Your task to perform on an android device: Search for "asus zenbook" on newegg, select the first entry, and add it to the cart. Image 0: 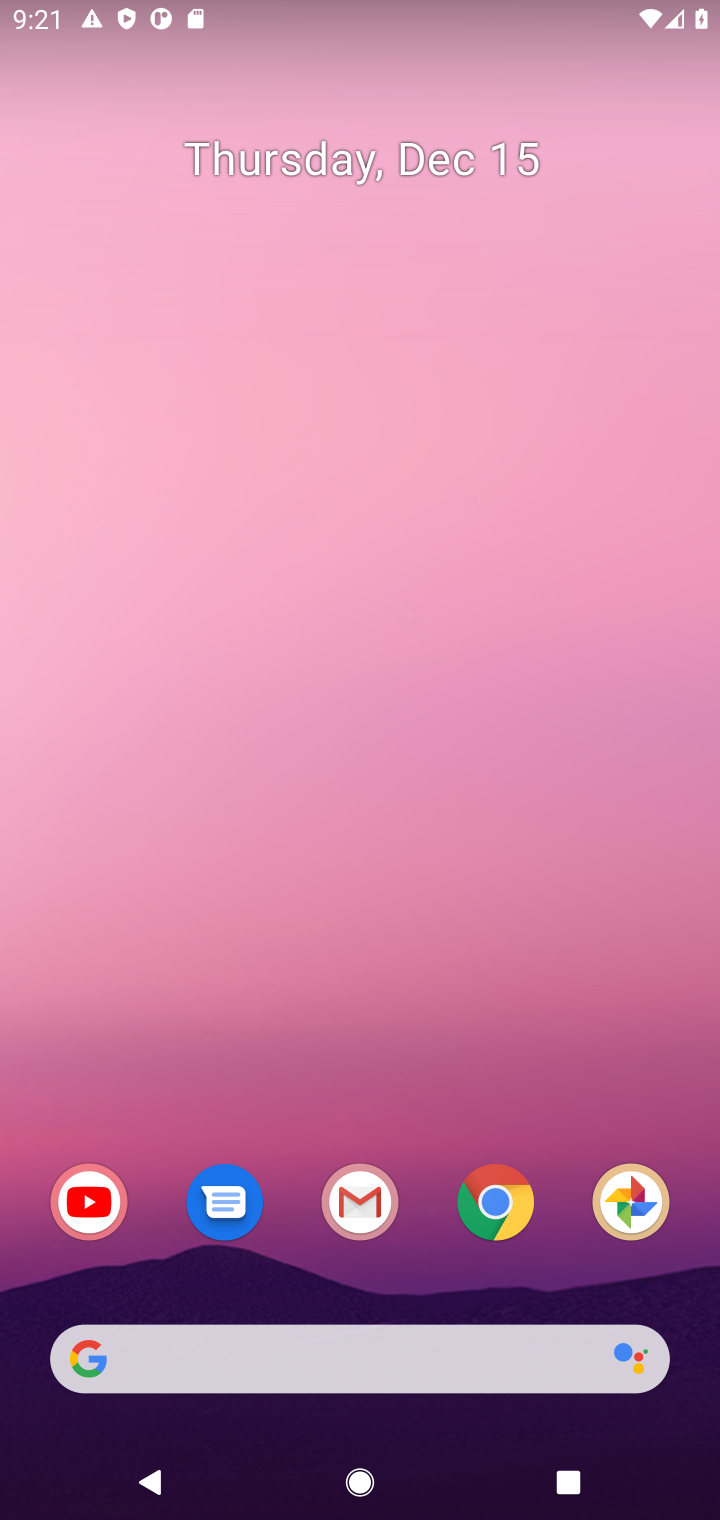
Step 0: click (499, 1211)
Your task to perform on an android device: Search for "asus zenbook" on newegg, select the first entry, and add it to the cart. Image 1: 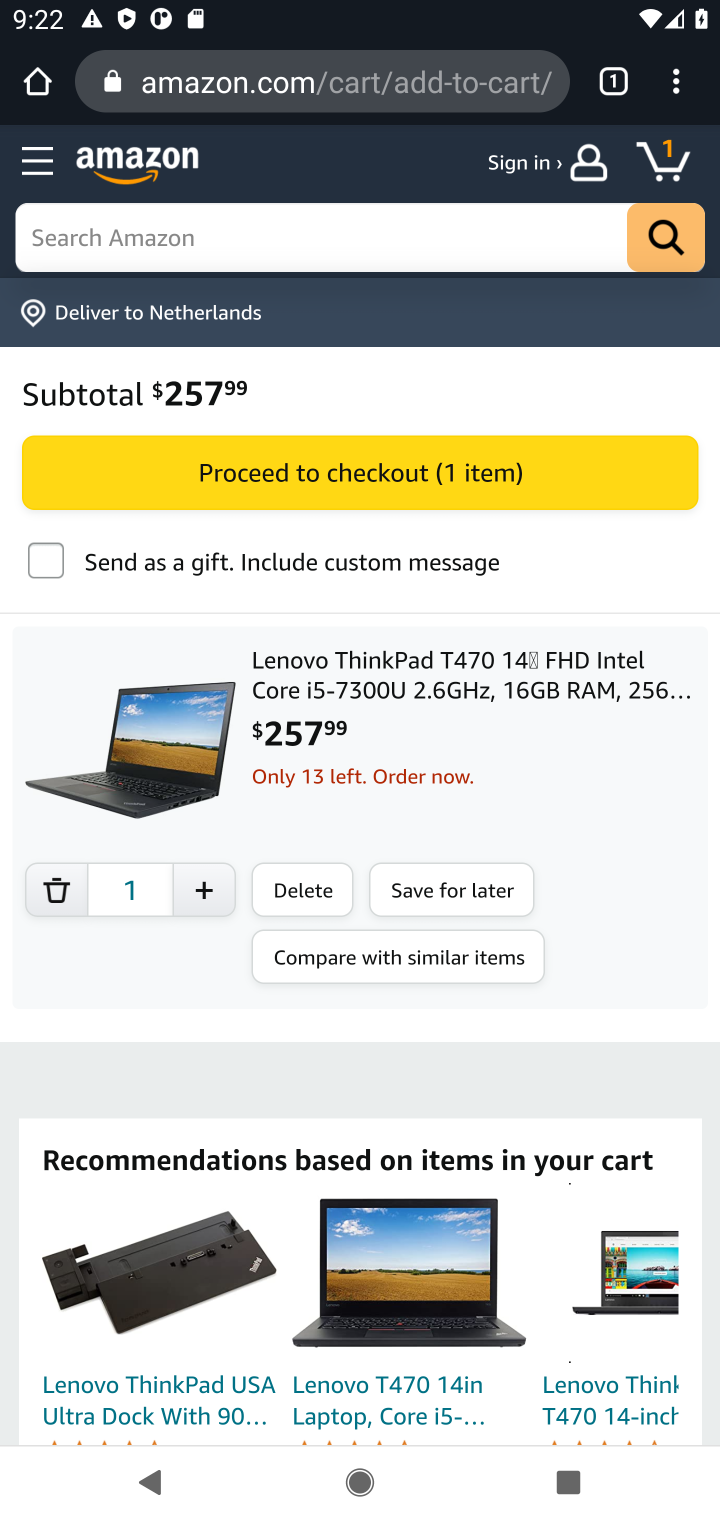
Step 1: click (205, 87)
Your task to perform on an android device: Search for "asus zenbook" on newegg, select the first entry, and add it to the cart. Image 2: 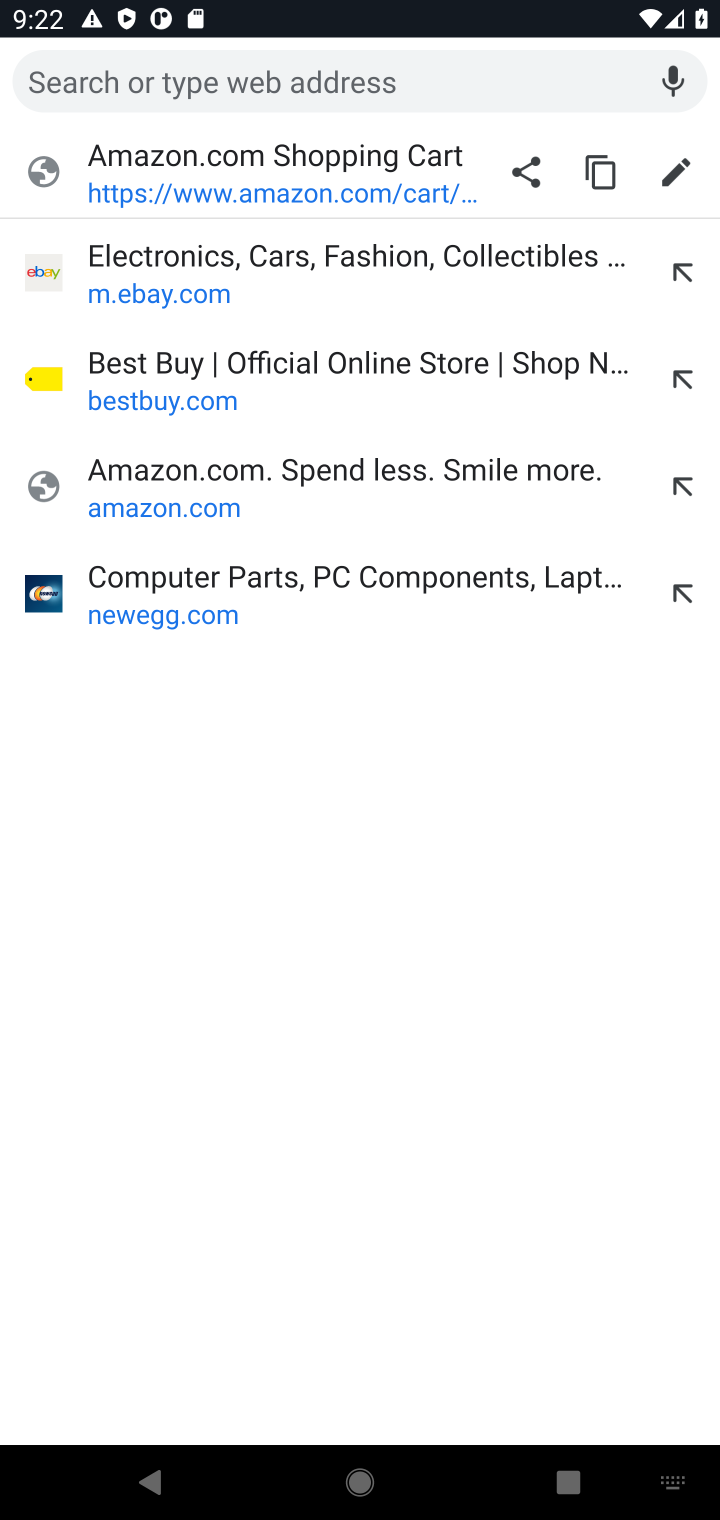
Step 2: click (122, 606)
Your task to perform on an android device: Search for "asus zenbook" on newegg, select the first entry, and add it to the cart. Image 3: 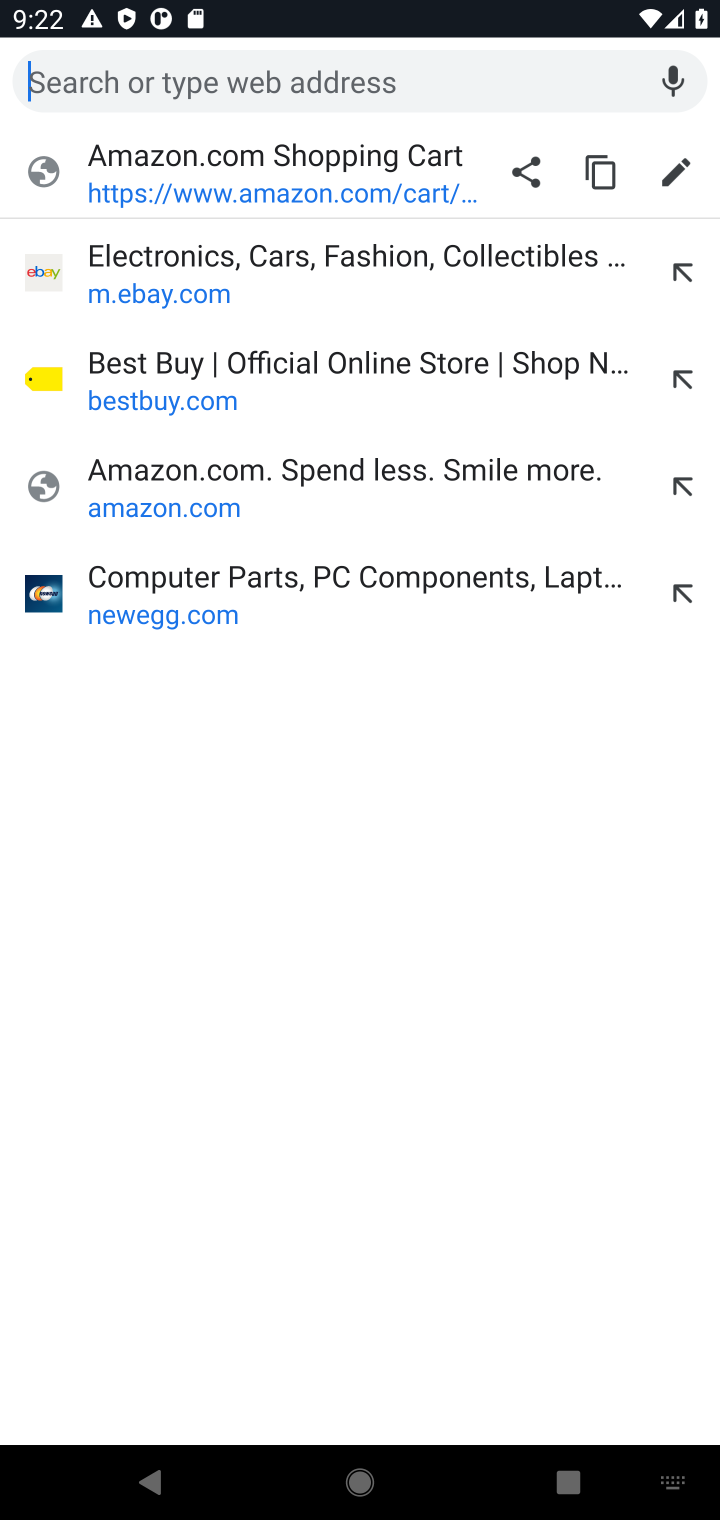
Step 3: click (137, 608)
Your task to perform on an android device: Search for "asus zenbook" on newegg, select the first entry, and add it to the cart. Image 4: 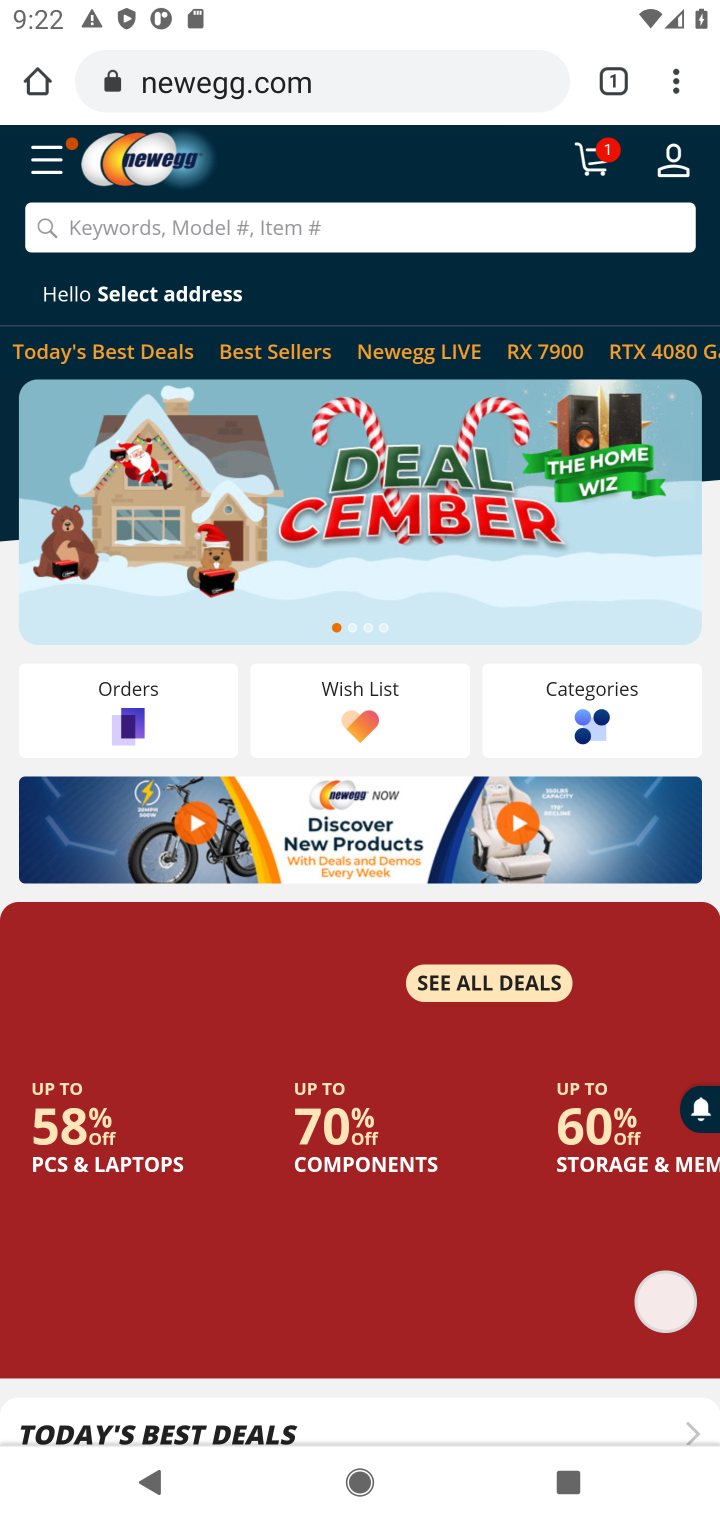
Step 4: click (130, 224)
Your task to perform on an android device: Search for "asus zenbook" on newegg, select the first entry, and add it to the cart. Image 5: 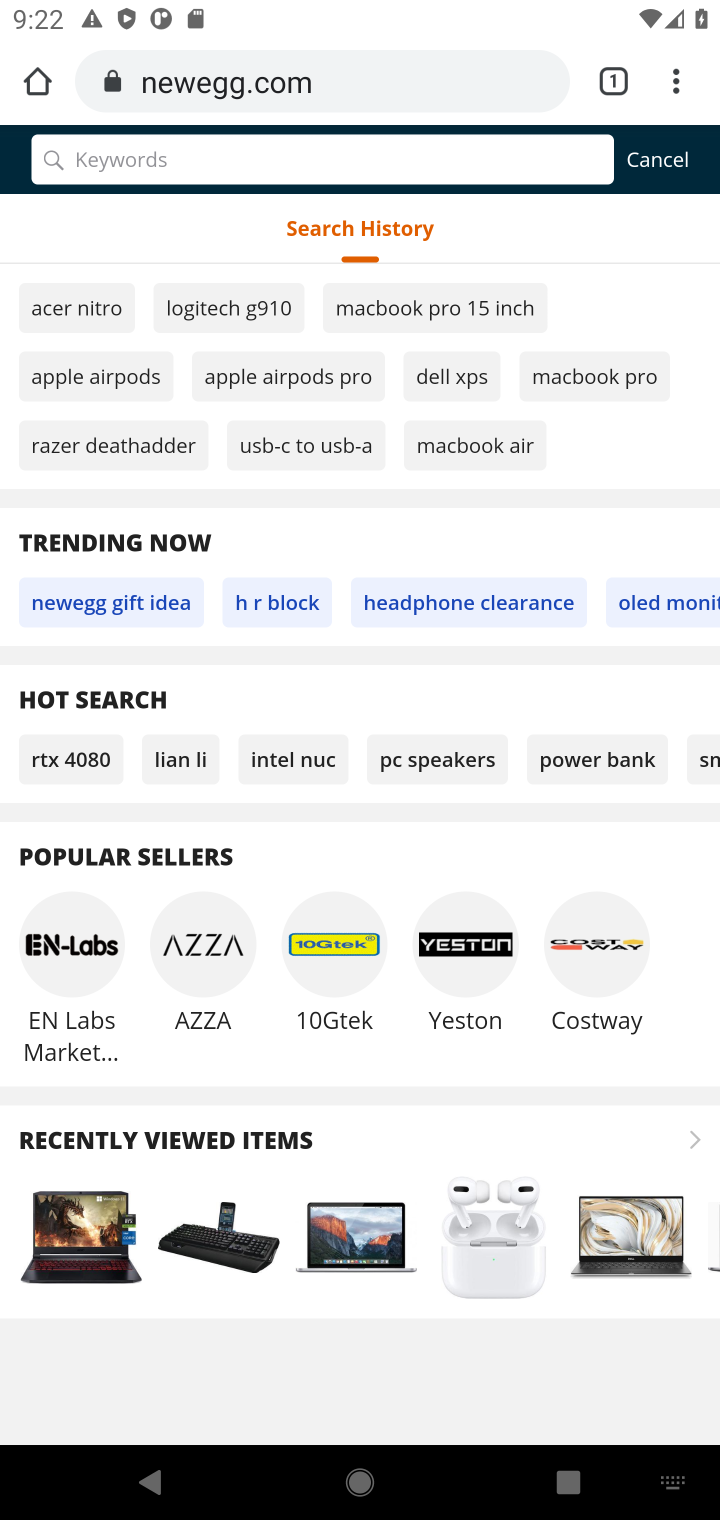
Step 5: type "asus zenbook"
Your task to perform on an android device: Search for "asus zenbook" on newegg, select the first entry, and add it to the cart. Image 6: 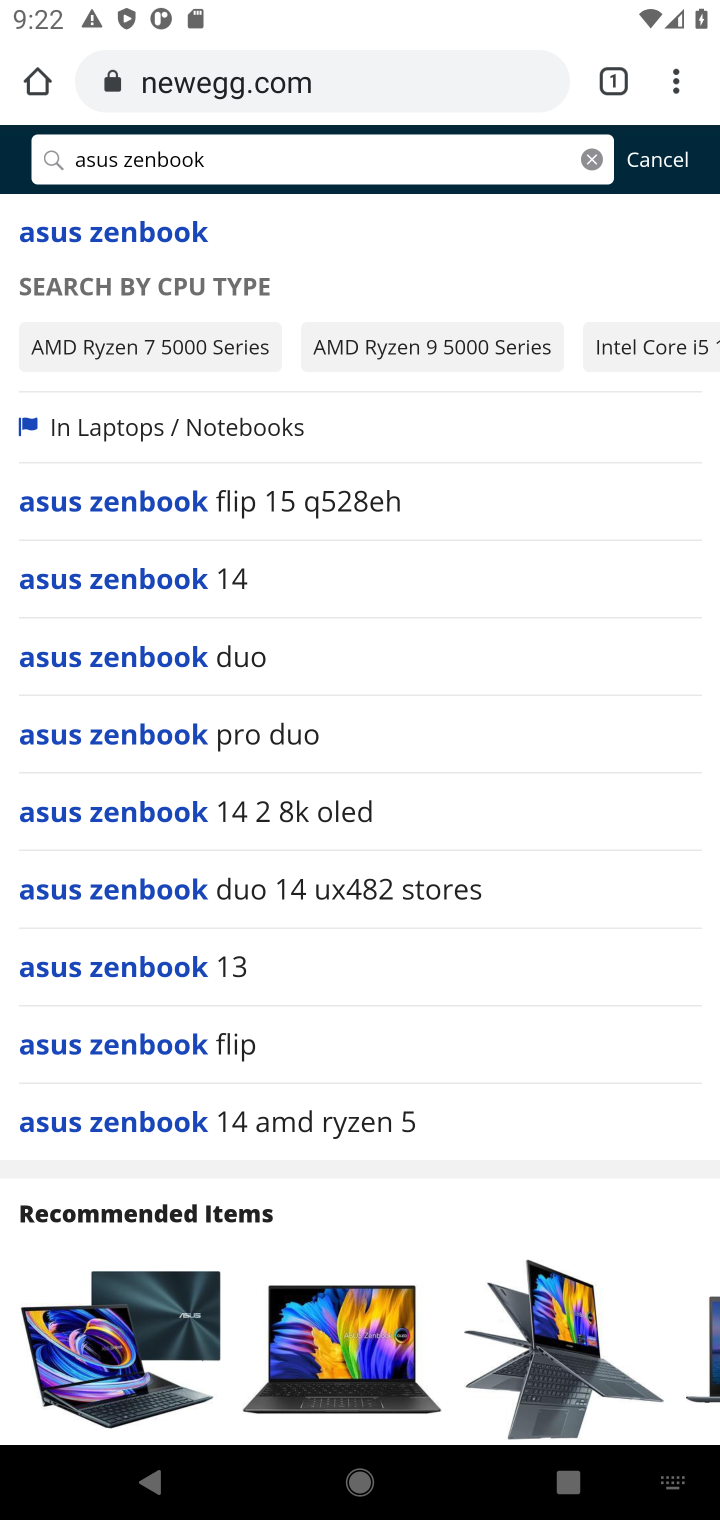
Step 6: click (94, 236)
Your task to perform on an android device: Search for "asus zenbook" on newegg, select the first entry, and add it to the cart. Image 7: 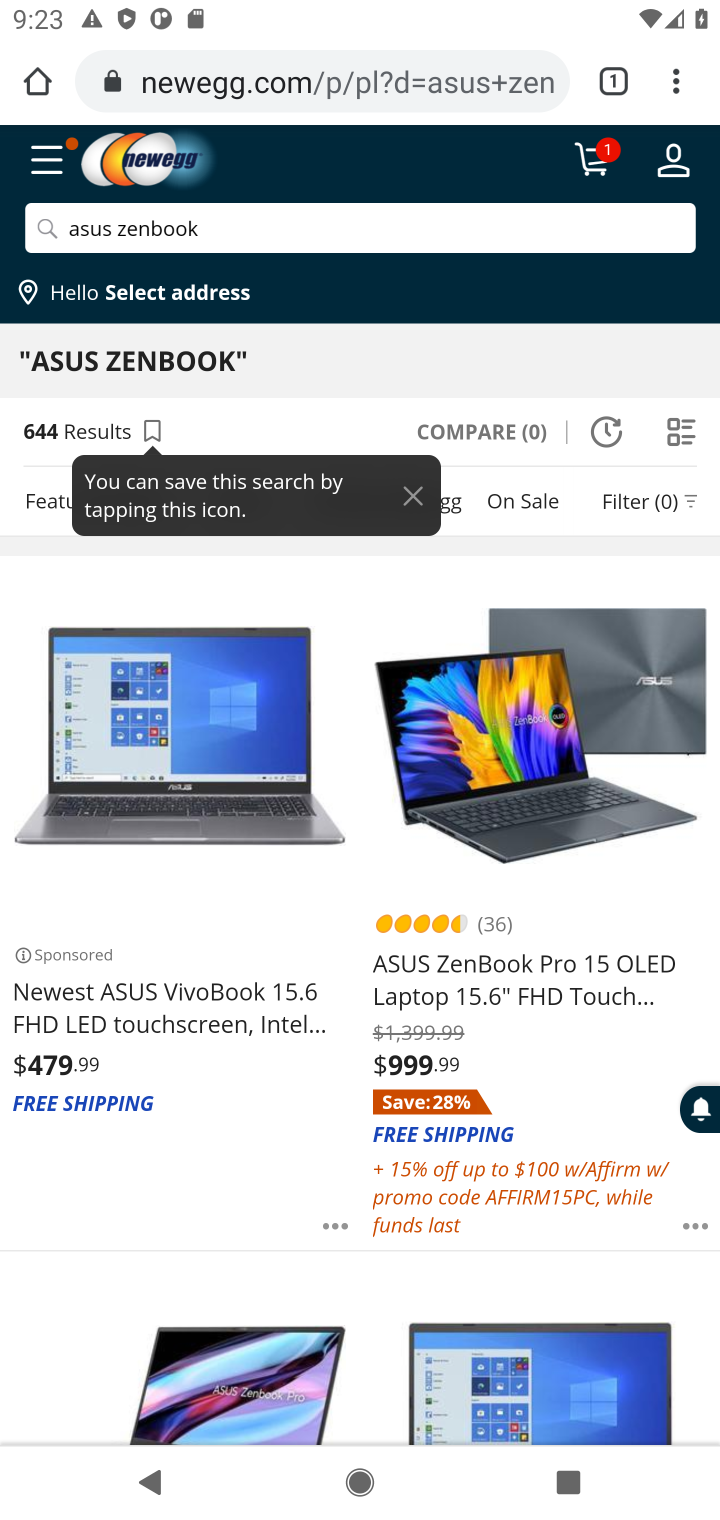
Step 7: task complete